Your task to perform on an android device: Open battery settings Image 0: 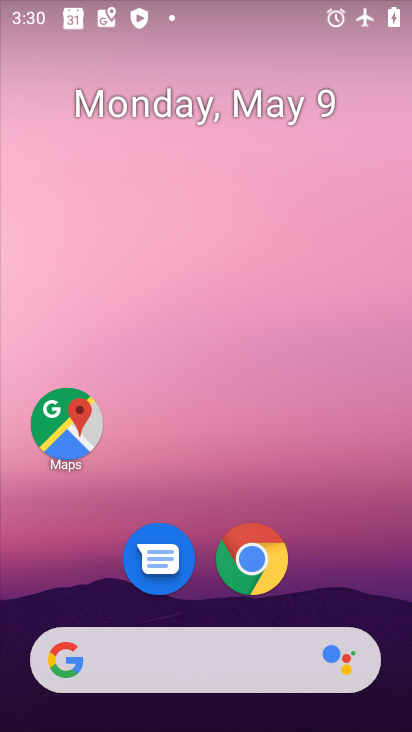
Step 0: drag from (199, 727) to (199, 178)
Your task to perform on an android device: Open battery settings Image 1: 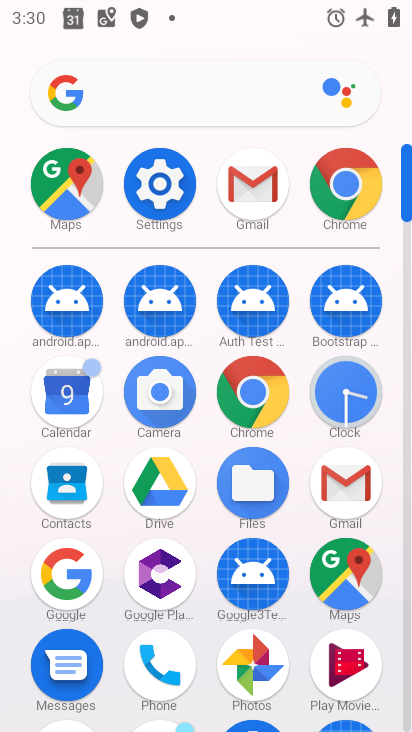
Step 1: click (164, 180)
Your task to perform on an android device: Open battery settings Image 2: 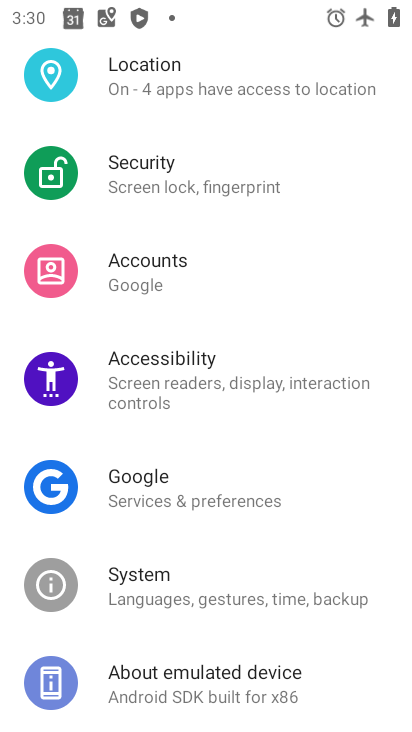
Step 2: drag from (223, 198) to (215, 504)
Your task to perform on an android device: Open battery settings Image 3: 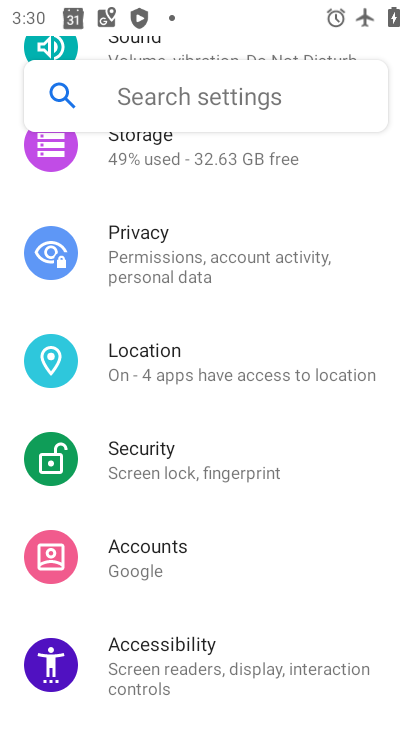
Step 3: drag from (166, 172) to (190, 507)
Your task to perform on an android device: Open battery settings Image 4: 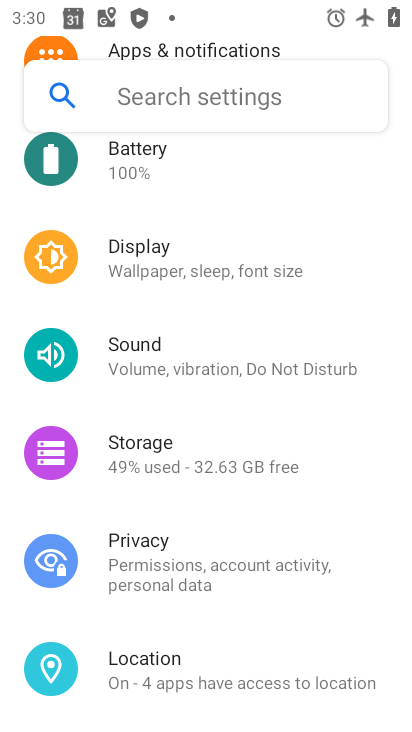
Step 4: click (129, 161)
Your task to perform on an android device: Open battery settings Image 5: 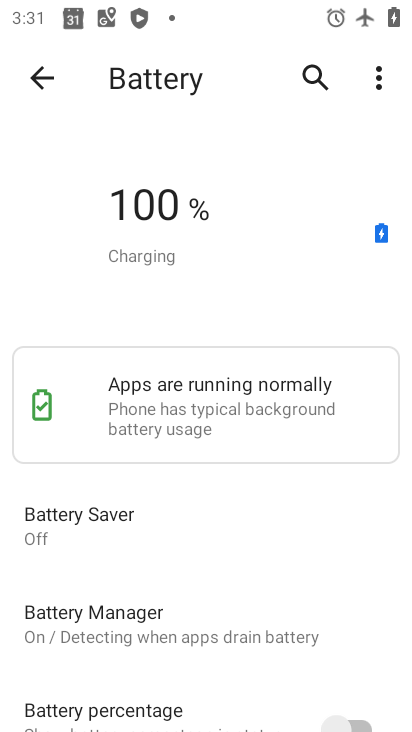
Step 5: task complete